Your task to perform on an android device: delete the emails in spam in the gmail app Image 0: 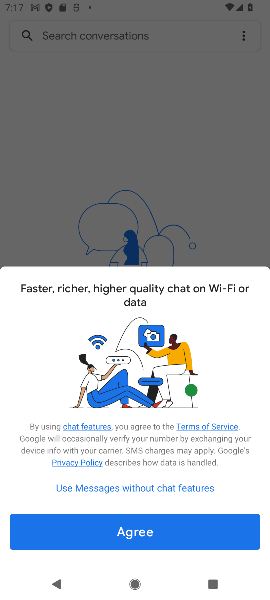
Step 0: press home button
Your task to perform on an android device: delete the emails in spam in the gmail app Image 1: 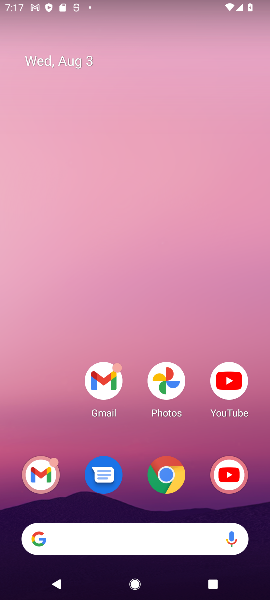
Step 1: click (40, 476)
Your task to perform on an android device: delete the emails in spam in the gmail app Image 2: 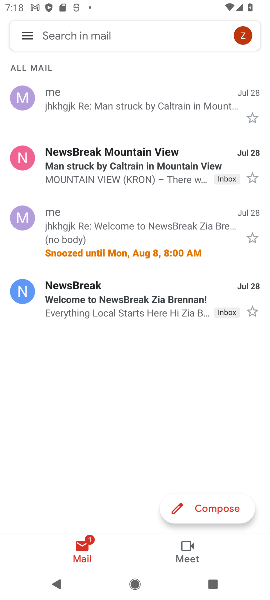
Step 2: click (142, 174)
Your task to perform on an android device: delete the emails in spam in the gmail app Image 3: 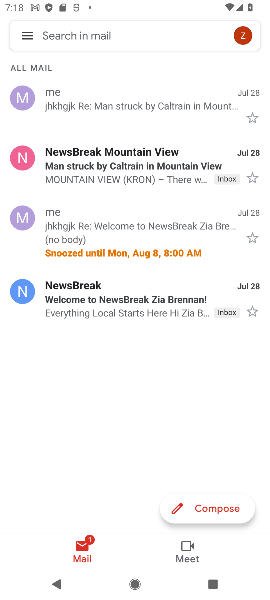
Step 3: click (19, 42)
Your task to perform on an android device: delete the emails in spam in the gmail app Image 4: 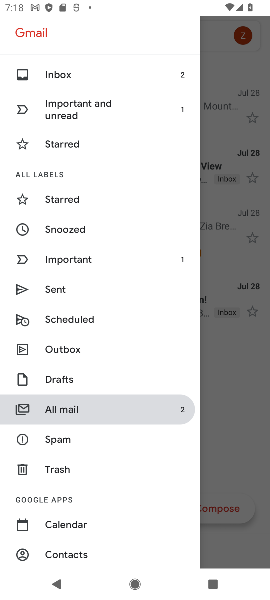
Step 4: click (80, 437)
Your task to perform on an android device: delete the emails in spam in the gmail app Image 5: 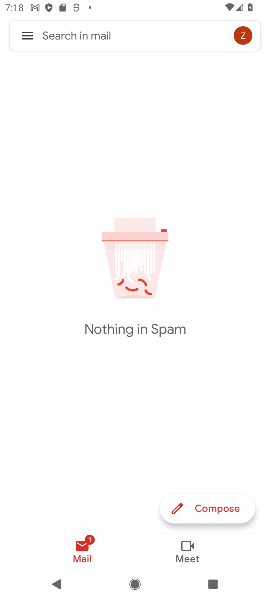
Step 5: task complete